Your task to perform on an android device: Open settings on Google Maps Image 0: 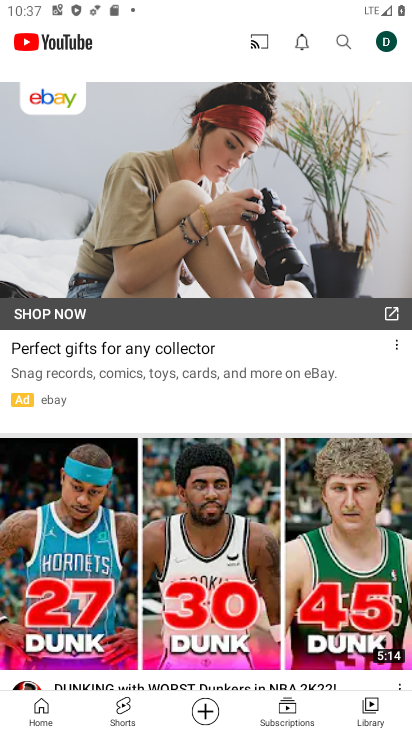
Step 0: press home button
Your task to perform on an android device: Open settings on Google Maps Image 1: 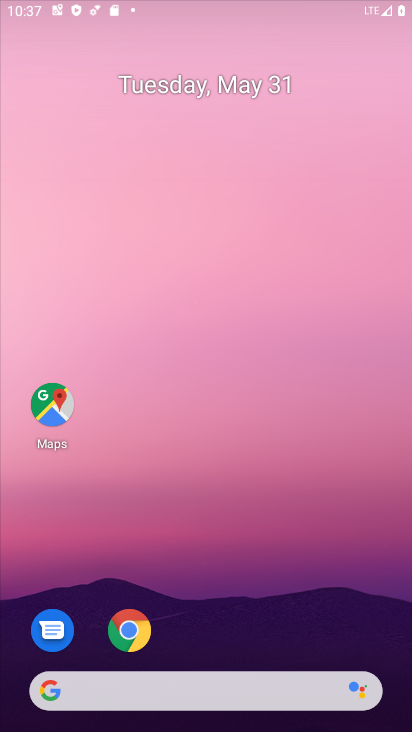
Step 1: drag from (203, 611) to (223, 143)
Your task to perform on an android device: Open settings on Google Maps Image 2: 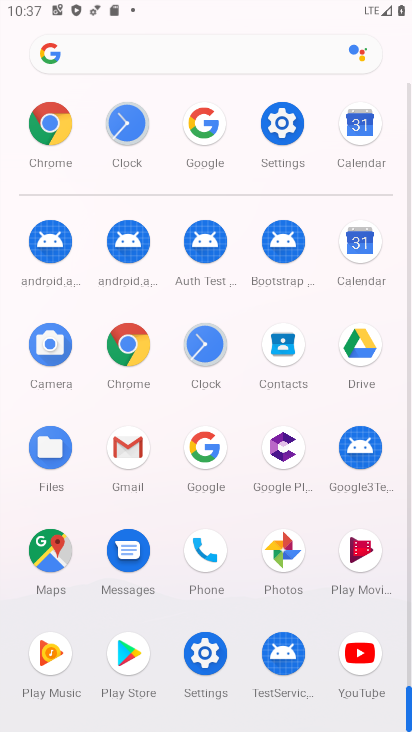
Step 2: click (54, 565)
Your task to perform on an android device: Open settings on Google Maps Image 3: 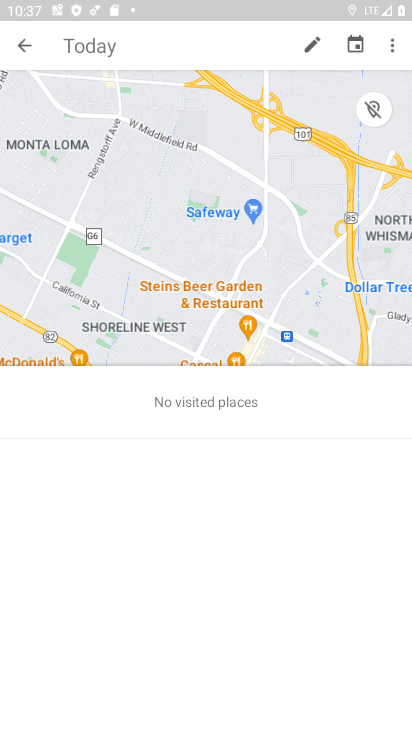
Step 3: click (20, 42)
Your task to perform on an android device: Open settings on Google Maps Image 4: 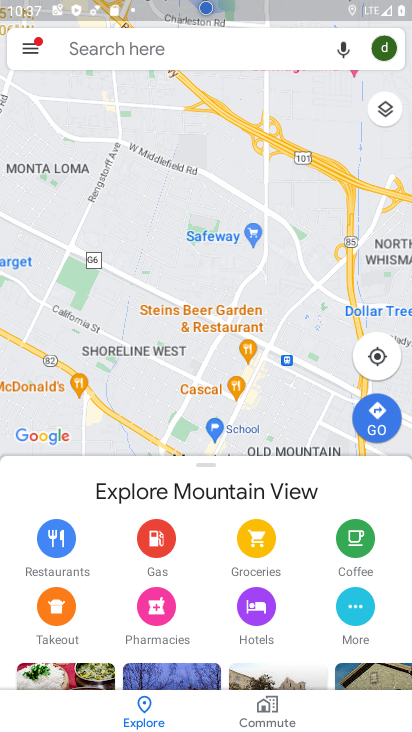
Step 4: click (35, 56)
Your task to perform on an android device: Open settings on Google Maps Image 5: 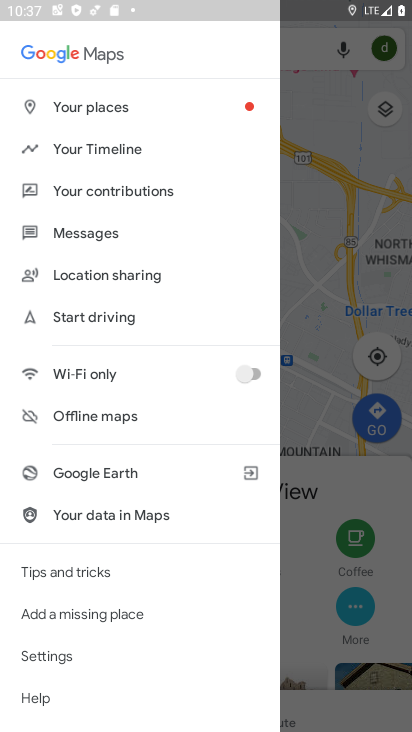
Step 5: click (51, 658)
Your task to perform on an android device: Open settings on Google Maps Image 6: 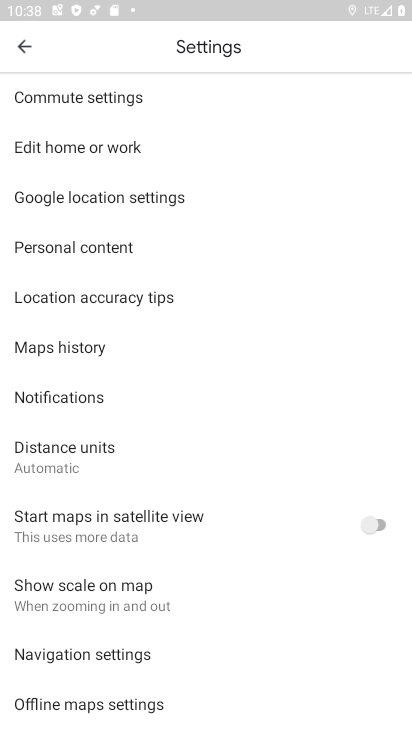
Step 6: task complete